Your task to perform on an android device: Open Reddit.com Image 0: 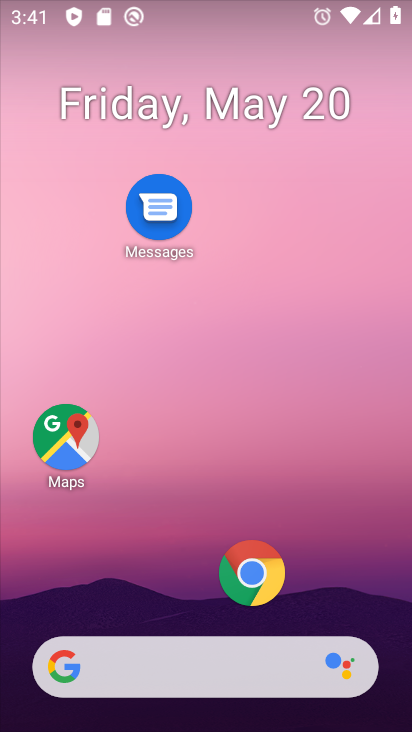
Step 0: click (250, 572)
Your task to perform on an android device: Open Reddit.com Image 1: 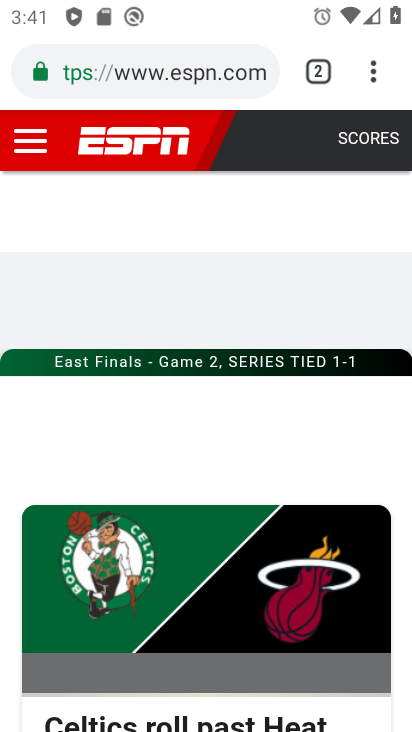
Step 1: click (310, 85)
Your task to perform on an android device: Open Reddit.com Image 2: 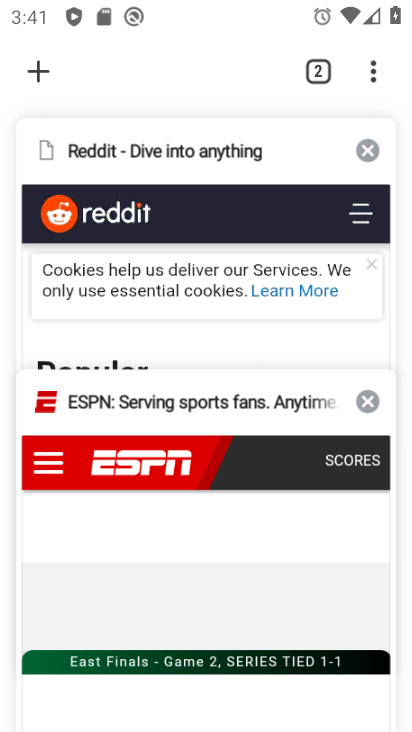
Step 2: click (193, 269)
Your task to perform on an android device: Open Reddit.com Image 3: 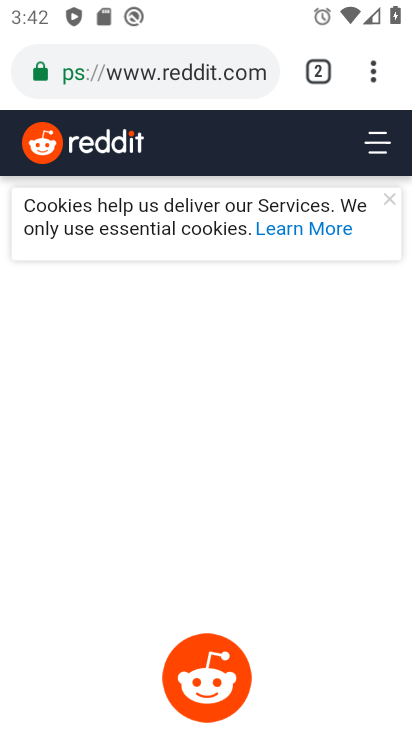
Step 3: task complete